Your task to perform on an android device: toggle wifi Image 0: 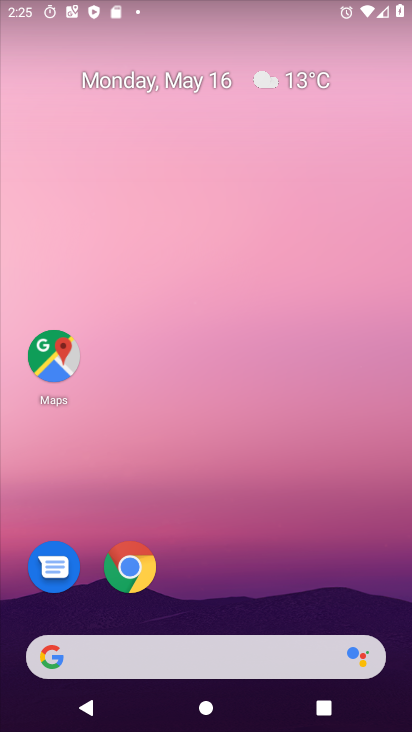
Step 0: drag from (254, 78) to (179, 484)
Your task to perform on an android device: toggle wifi Image 1: 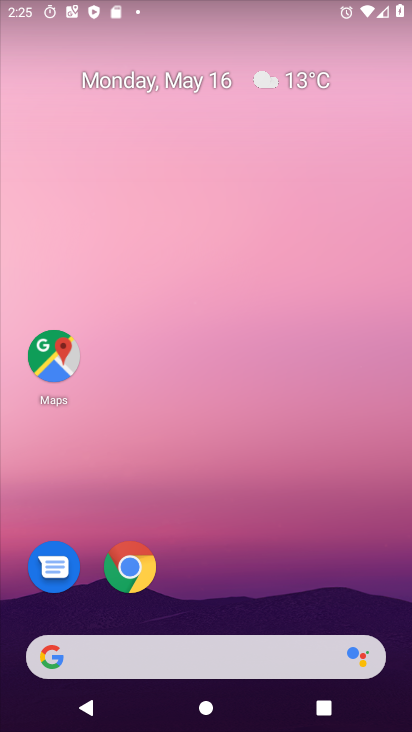
Step 1: drag from (216, 3) to (164, 446)
Your task to perform on an android device: toggle wifi Image 2: 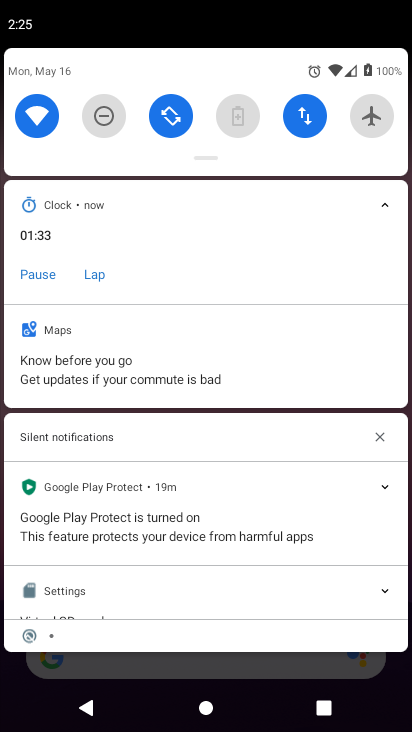
Step 2: drag from (142, 146) to (102, 442)
Your task to perform on an android device: toggle wifi Image 3: 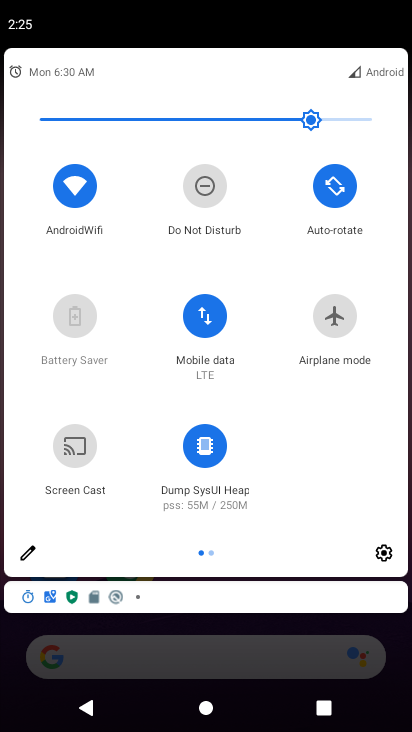
Step 3: click (76, 182)
Your task to perform on an android device: toggle wifi Image 4: 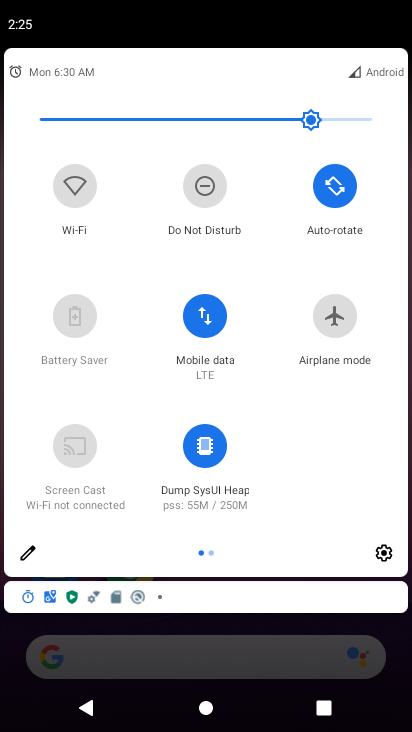
Step 4: task complete